Your task to perform on an android device: Search for the best running shoes on Nike. Image 0: 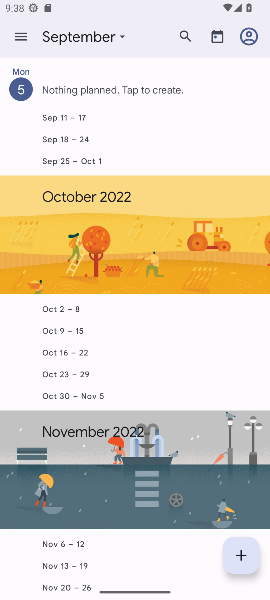
Step 0: press home button
Your task to perform on an android device: Search for the best running shoes on Nike. Image 1: 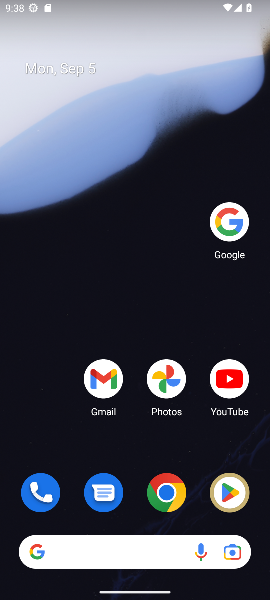
Step 1: click (218, 212)
Your task to perform on an android device: Search for the best running shoes on Nike. Image 2: 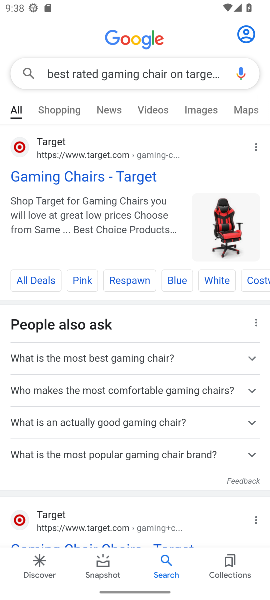
Step 2: click (118, 67)
Your task to perform on an android device: Search for the best running shoes on Nike. Image 3: 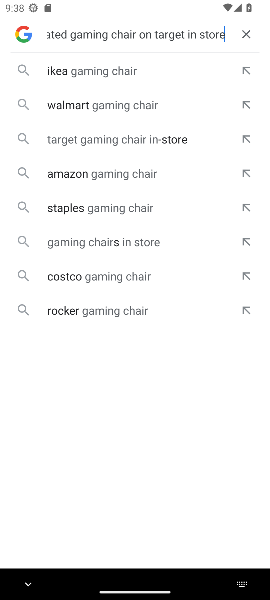
Step 3: click (242, 30)
Your task to perform on an android device: Search for the best running shoes on Nike. Image 4: 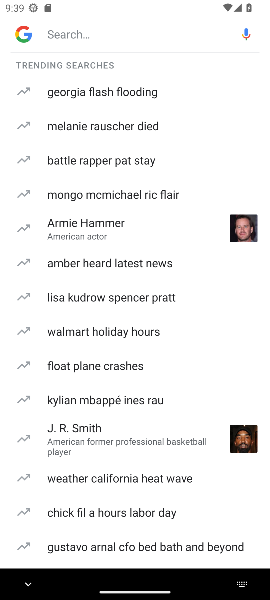
Step 4: click (123, 16)
Your task to perform on an android device: Search for the best running shoes on Nike. Image 5: 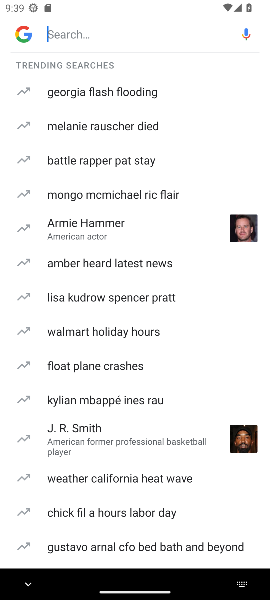
Step 5: type "the best running shoes on Nike. "
Your task to perform on an android device: Search for the best running shoes on Nike. Image 6: 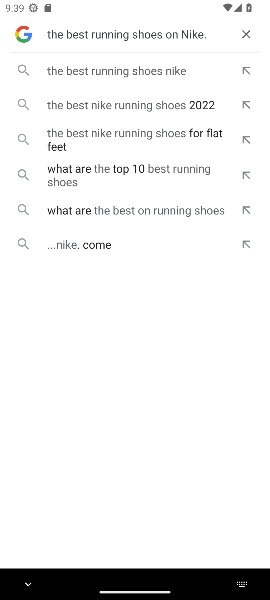
Step 6: click (138, 64)
Your task to perform on an android device: Search for the best running shoes on Nike. Image 7: 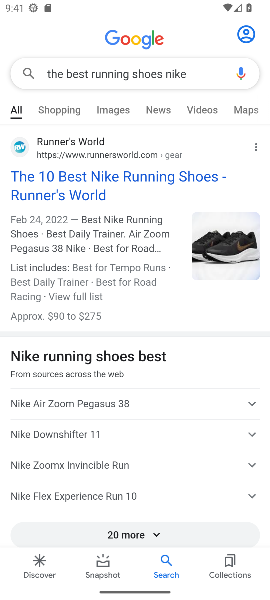
Step 7: task complete